Your task to perform on an android device: Open Google Chrome Image 0: 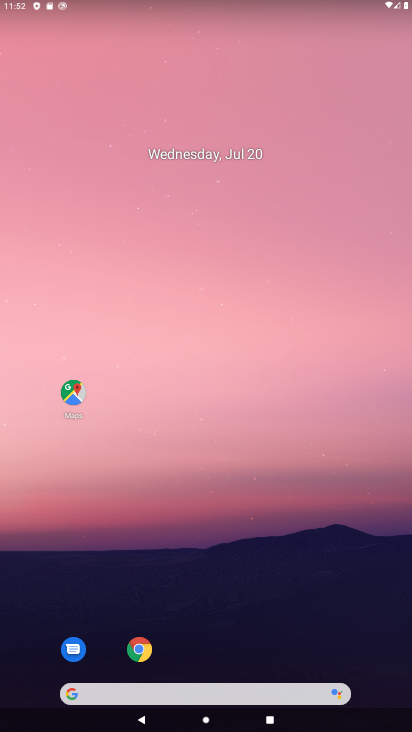
Step 0: press home button
Your task to perform on an android device: Open Google Chrome Image 1: 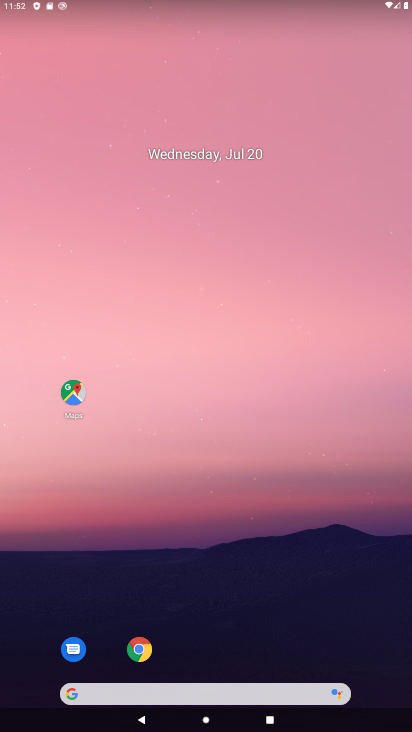
Step 1: click (140, 650)
Your task to perform on an android device: Open Google Chrome Image 2: 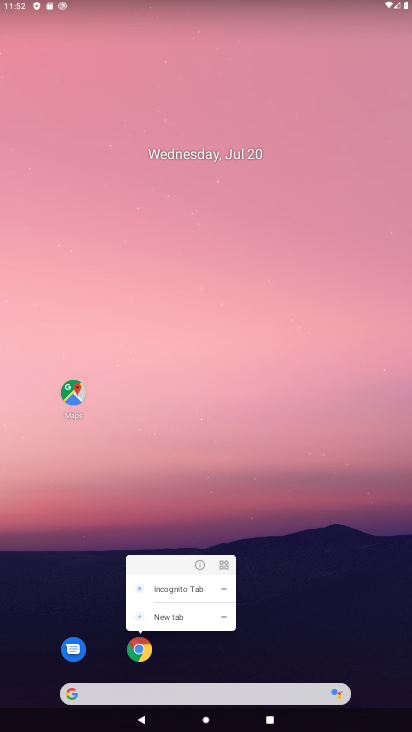
Step 2: click (135, 656)
Your task to perform on an android device: Open Google Chrome Image 3: 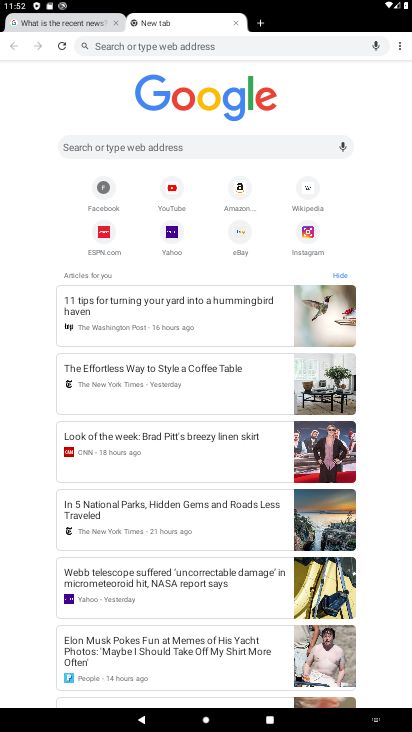
Step 3: task complete